Your task to perform on an android device: turn off data saver in the chrome app Image 0: 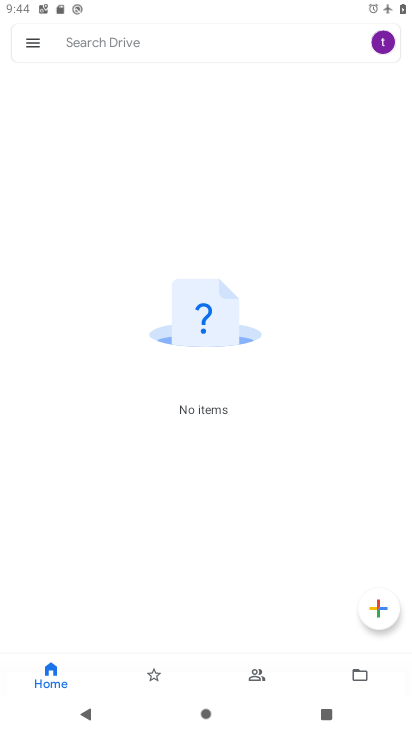
Step 0: press home button
Your task to perform on an android device: turn off data saver in the chrome app Image 1: 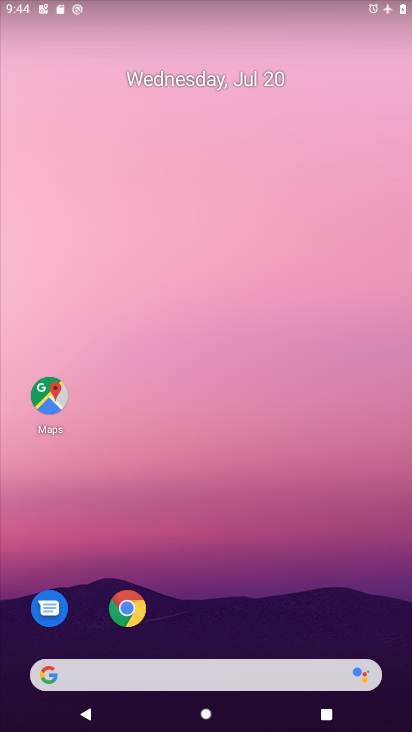
Step 1: drag from (214, 613) to (285, 11)
Your task to perform on an android device: turn off data saver in the chrome app Image 2: 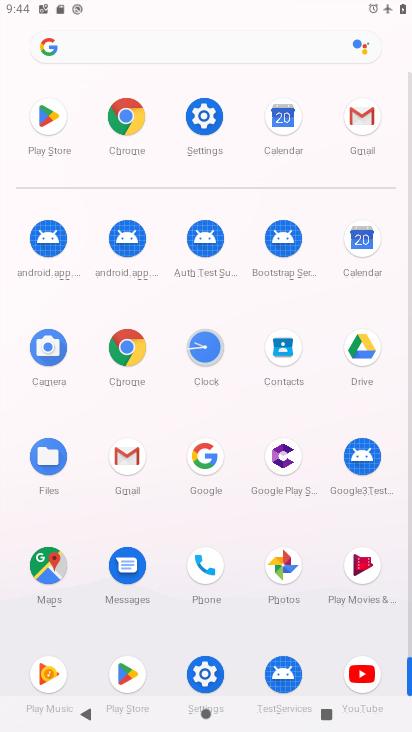
Step 2: click (116, 154)
Your task to perform on an android device: turn off data saver in the chrome app Image 3: 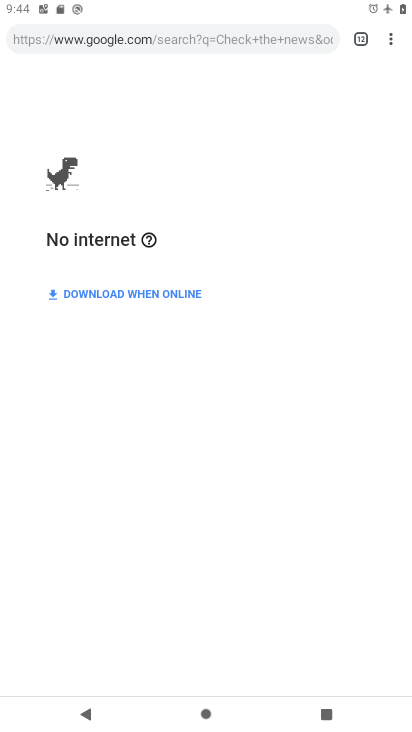
Step 3: click (389, 38)
Your task to perform on an android device: turn off data saver in the chrome app Image 4: 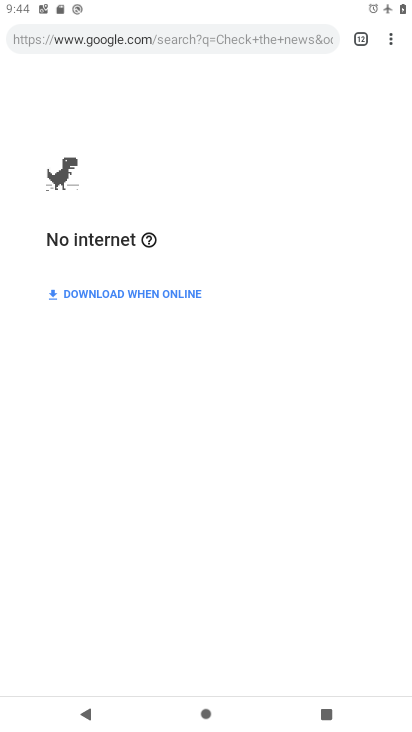
Step 4: click (400, 27)
Your task to perform on an android device: turn off data saver in the chrome app Image 5: 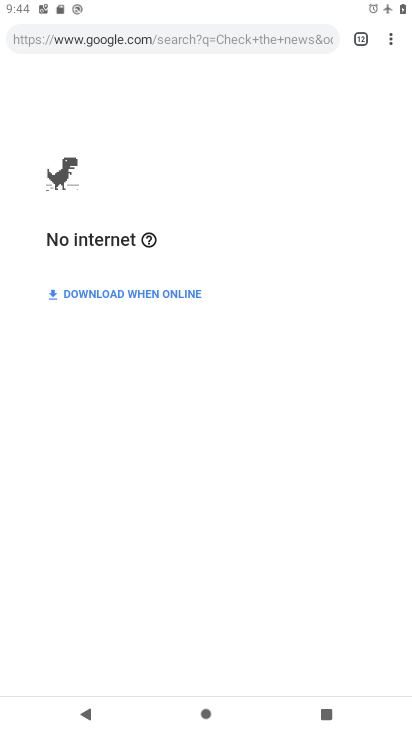
Step 5: click (398, 31)
Your task to perform on an android device: turn off data saver in the chrome app Image 6: 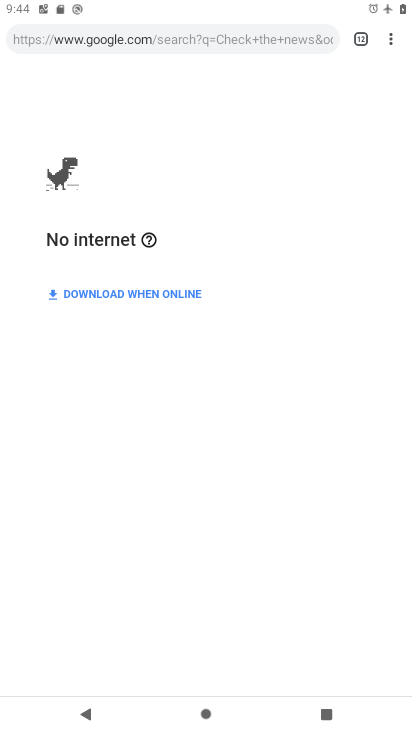
Step 6: click (396, 31)
Your task to perform on an android device: turn off data saver in the chrome app Image 7: 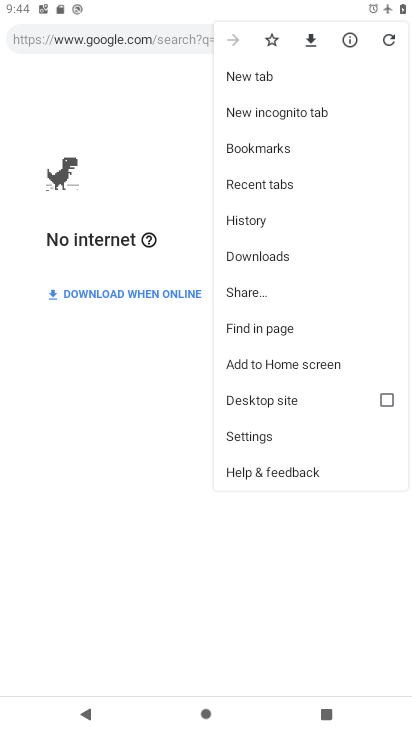
Step 7: click (260, 430)
Your task to perform on an android device: turn off data saver in the chrome app Image 8: 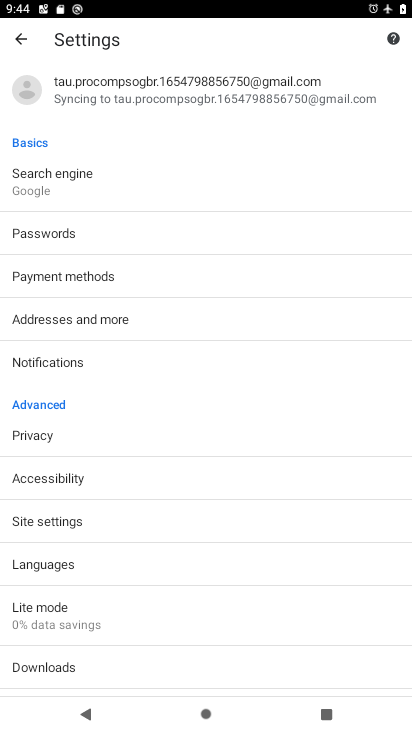
Step 8: click (108, 609)
Your task to perform on an android device: turn off data saver in the chrome app Image 9: 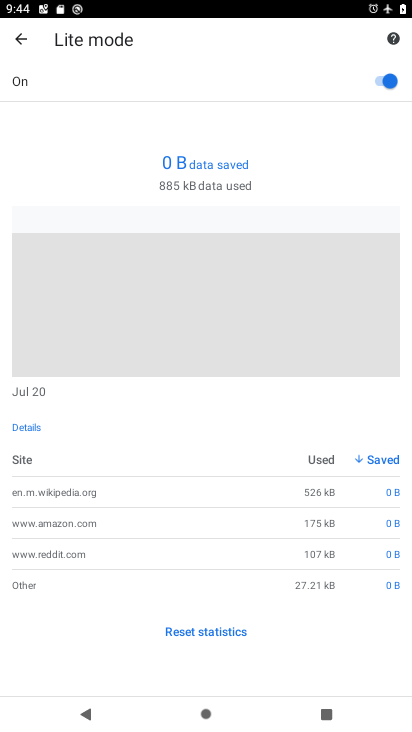
Step 9: click (379, 82)
Your task to perform on an android device: turn off data saver in the chrome app Image 10: 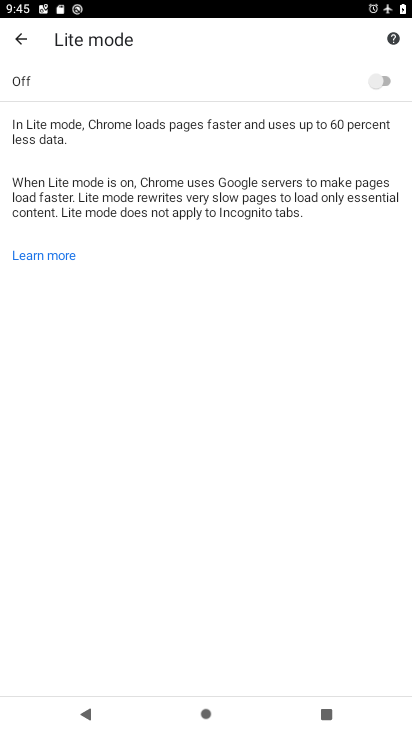
Step 10: task complete